Your task to perform on an android device: Show me recent news Image 0: 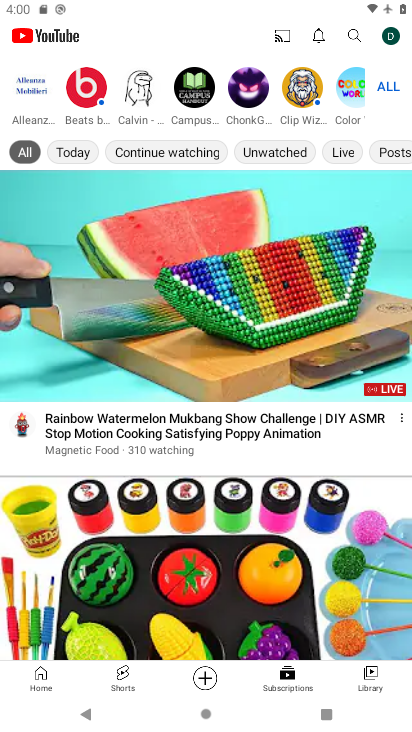
Step 0: press home button
Your task to perform on an android device: Show me recent news Image 1: 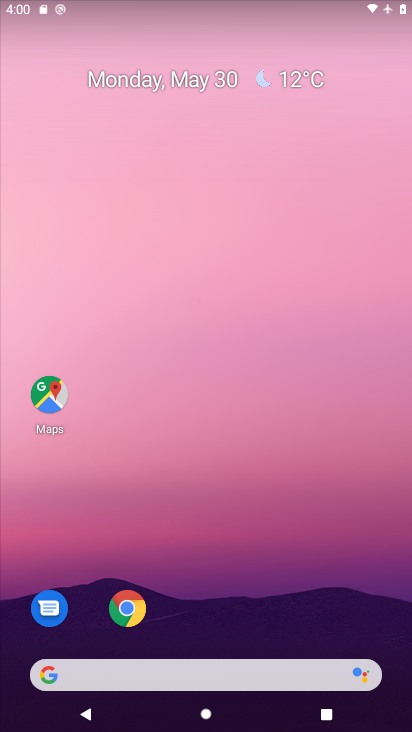
Step 1: drag from (286, 595) to (163, 32)
Your task to perform on an android device: Show me recent news Image 2: 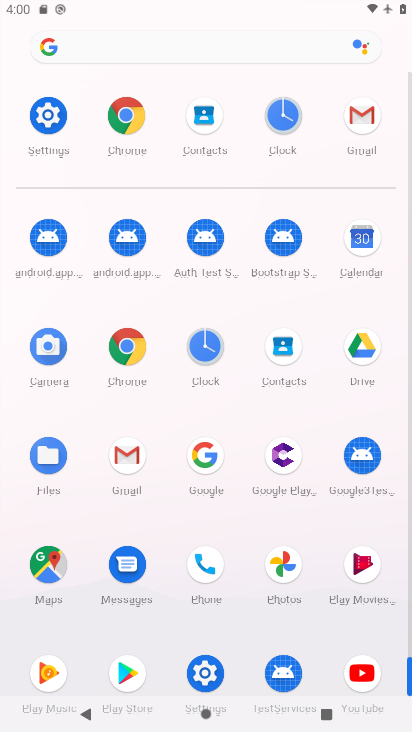
Step 2: click (198, 466)
Your task to perform on an android device: Show me recent news Image 3: 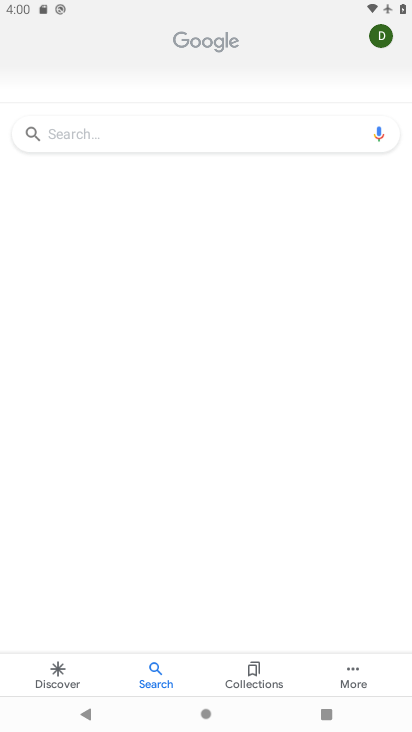
Step 3: click (76, 128)
Your task to perform on an android device: Show me recent news Image 4: 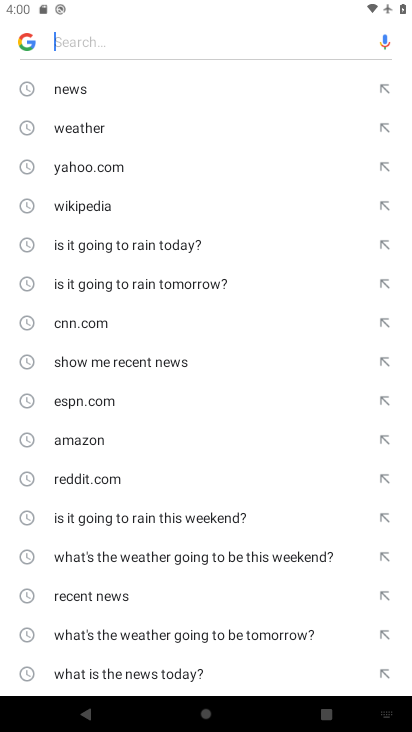
Step 4: click (112, 591)
Your task to perform on an android device: Show me recent news Image 5: 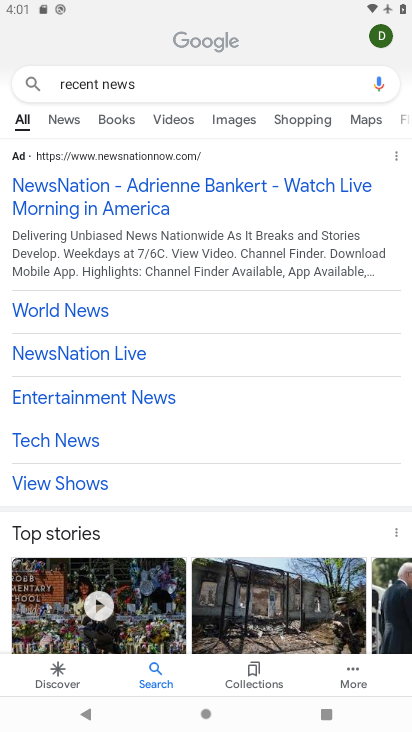
Step 5: task complete